Your task to perform on an android device: set the timer Image 0: 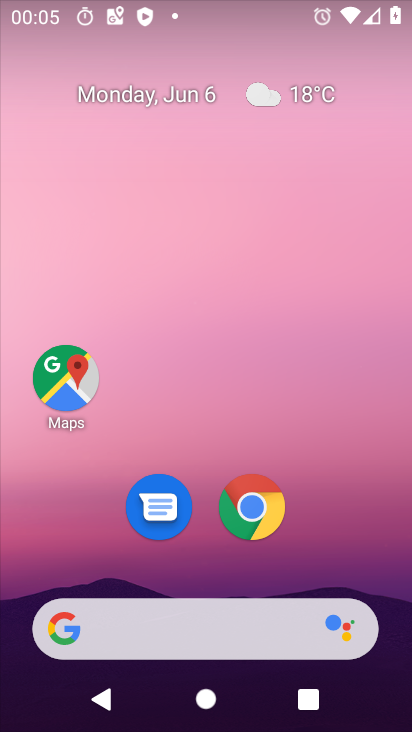
Step 0: drag from (223, 720) to (242, 65)
Your task to perform on an android device: set the timer Image 1: 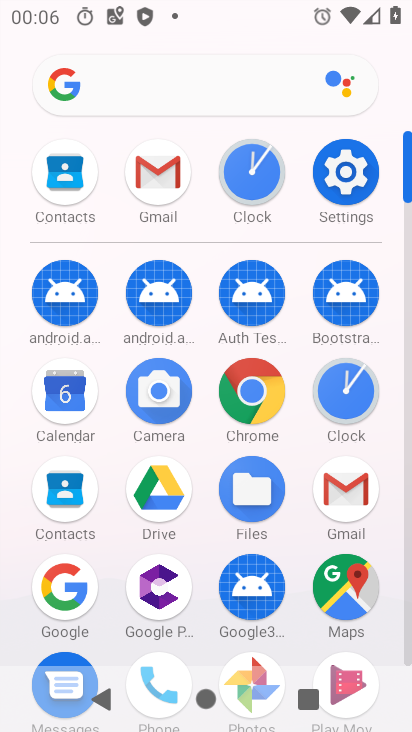
Step 1: click (342, 389)
Your task to perform on an android device: set the timer Image 2: 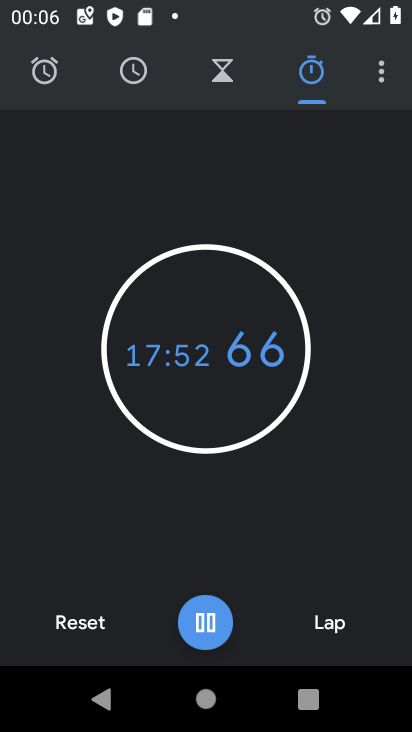
Step 2: click (220, 78)
Your task to perform on an android device: set the timer Image 3: 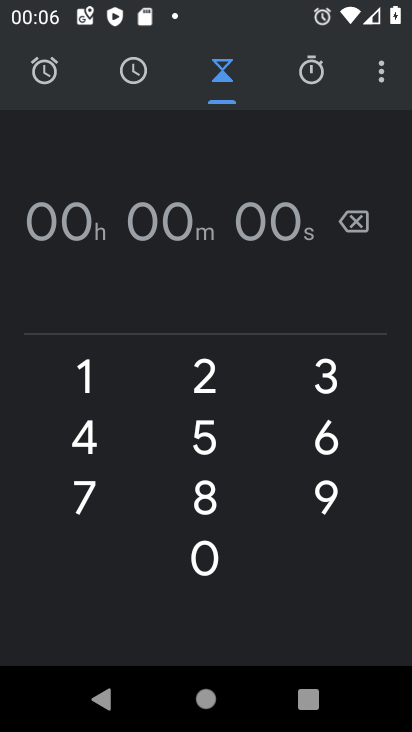
Step 3: click (203, 381)
Your task to perform on an android device: set the timer Image 4: 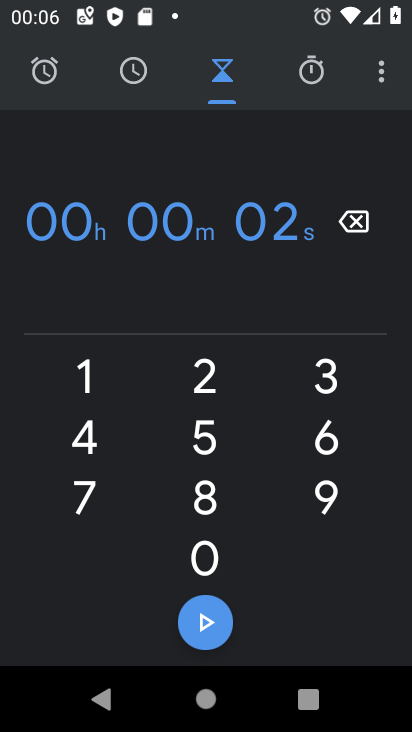
Step 4: click (88, 380)
Your task to perform on an android device: set the timer Image 5: 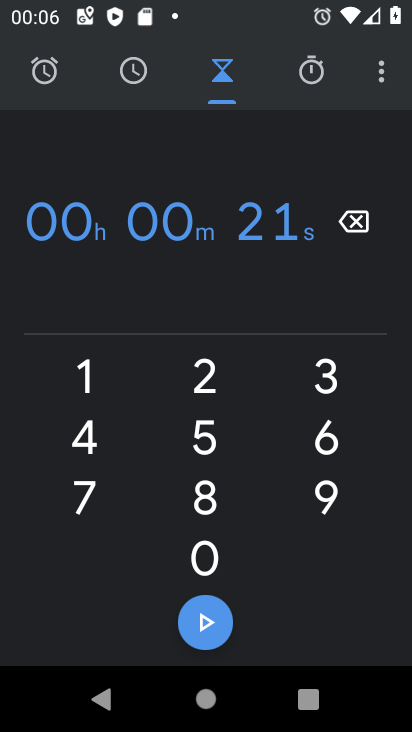
Step 5: click (213, 445)
Your task to perform on an android device: set the timer Image 6: 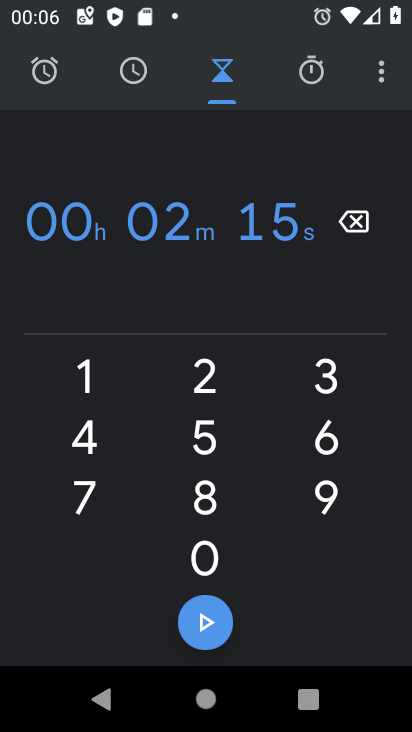
Step 6: click (202, 626)
Your task to perform on an android device: set the timer Image 7: 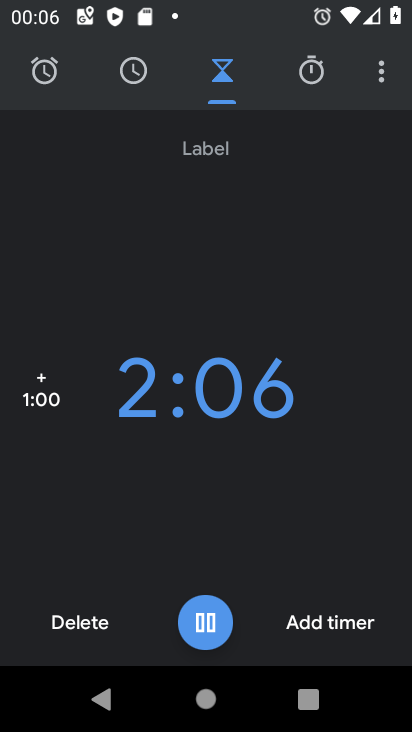
Step 7: task complete